Your task to perform on an android device: Go to CNN.com Image 0: 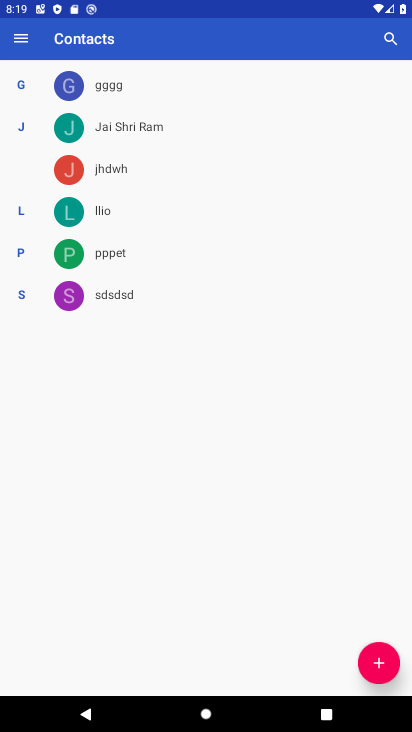
Step 0: click (173, 6)
Your task to perform on an android device: Go to CNN.com Image 1: 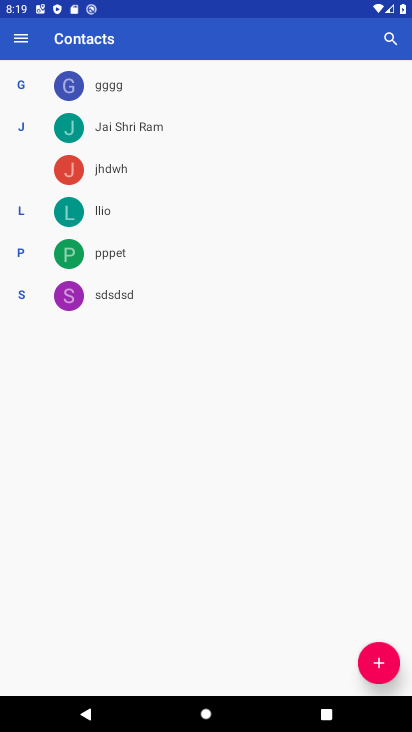
Step 1: press home button
Your task to perform on an android device: Go to CNN.com Image 2: 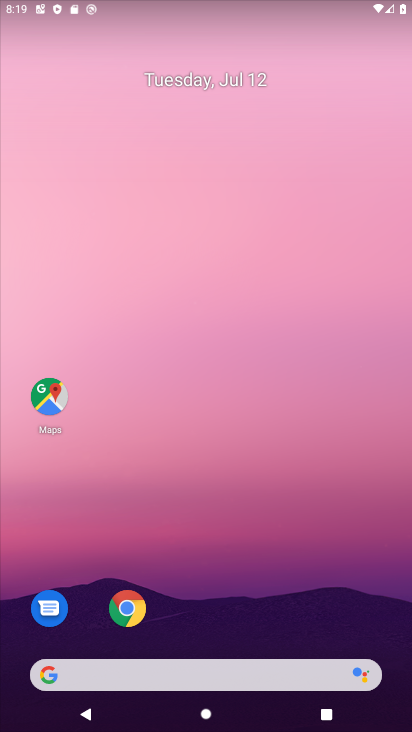
Step 2: click (168, 673)
Your task to perform on an android device: Go to CNN.com Image 3: 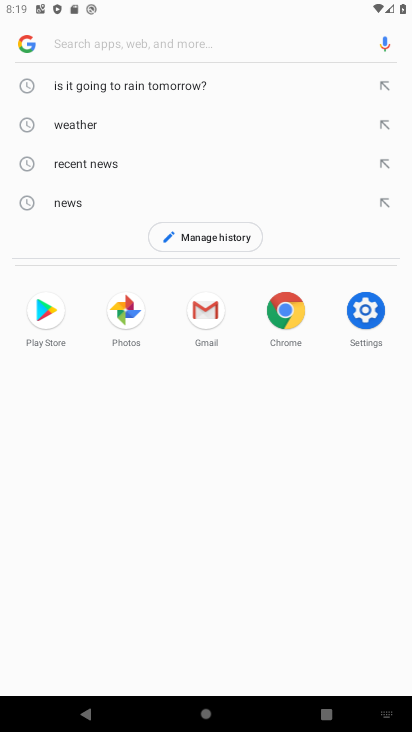
Step 3: type "cnn"
Your task to perform on an android device: Go to CNN.com Image 4: 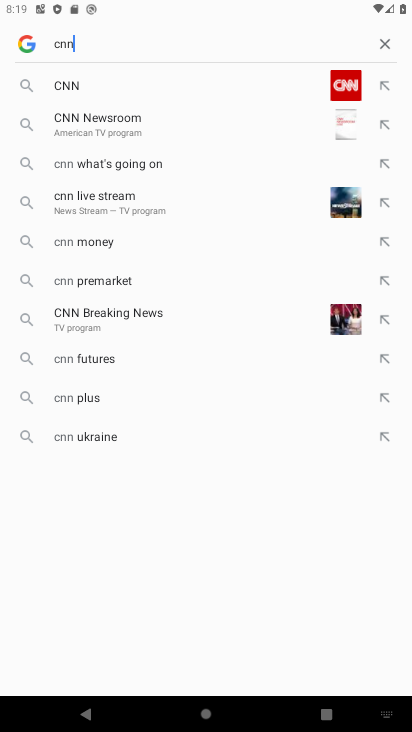
Step 4: click (253, 80)
Your task to perform on an android device: Go to CNN.com Image 5: 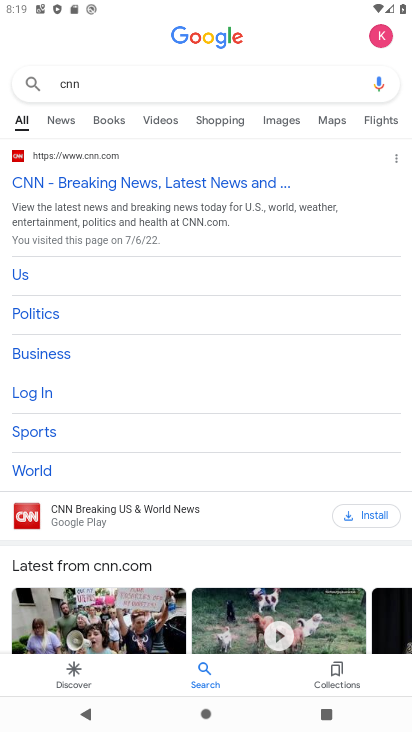
Step 5: click (252, 187)
Your task to perform on an android device: Go to CNN.com Image 6: 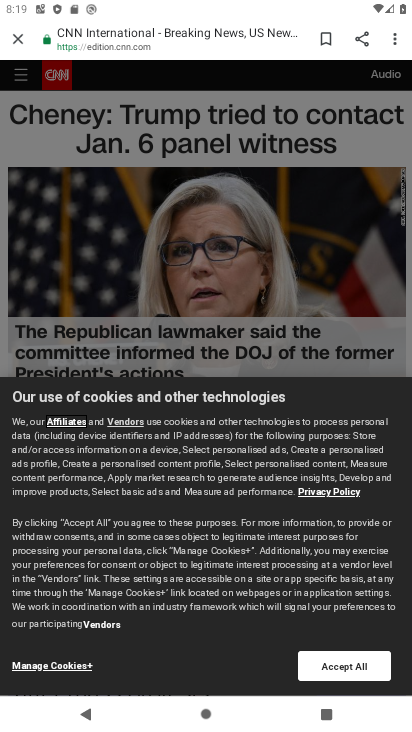
Step 6: task complete